Your task to perform on an android device: Search for flights from NYC to Barcelona Image 0: 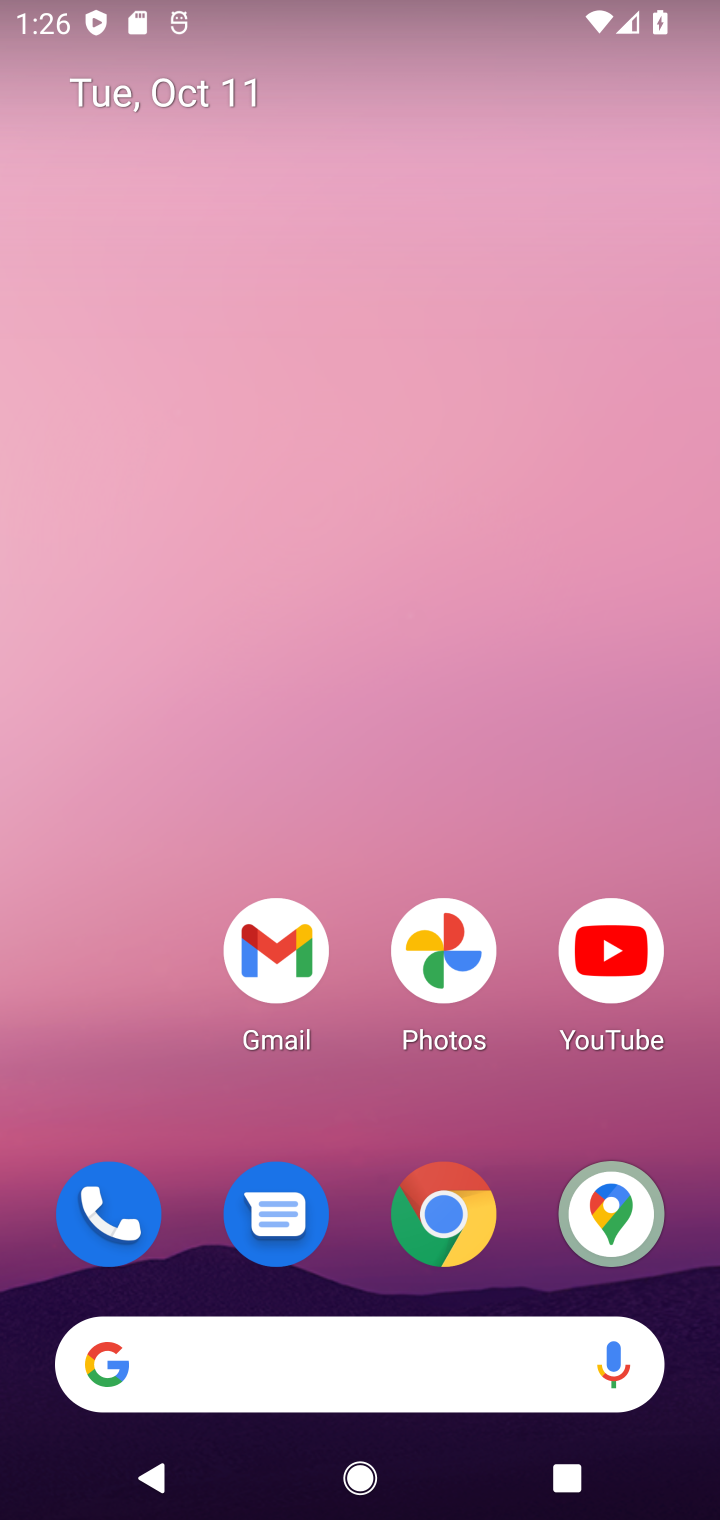
Step 0: click (330, 1358)
Your task to perform on an android device: Search for flights from NYC to Barcelona Image 1: 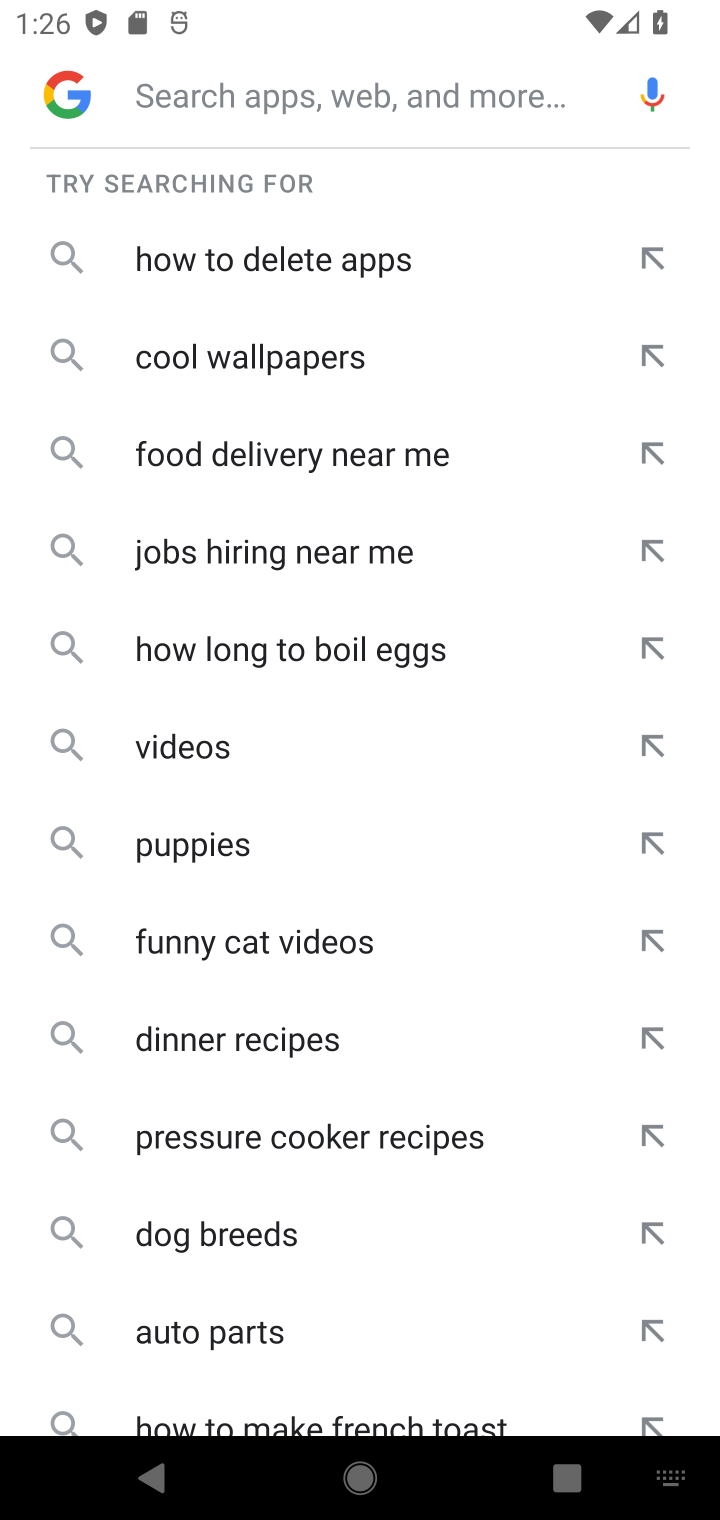
Step 1: type "flights from NYC to barcelona"
Your task to perform on an android device: Search for flights from NYC to Barcelona Image 2: 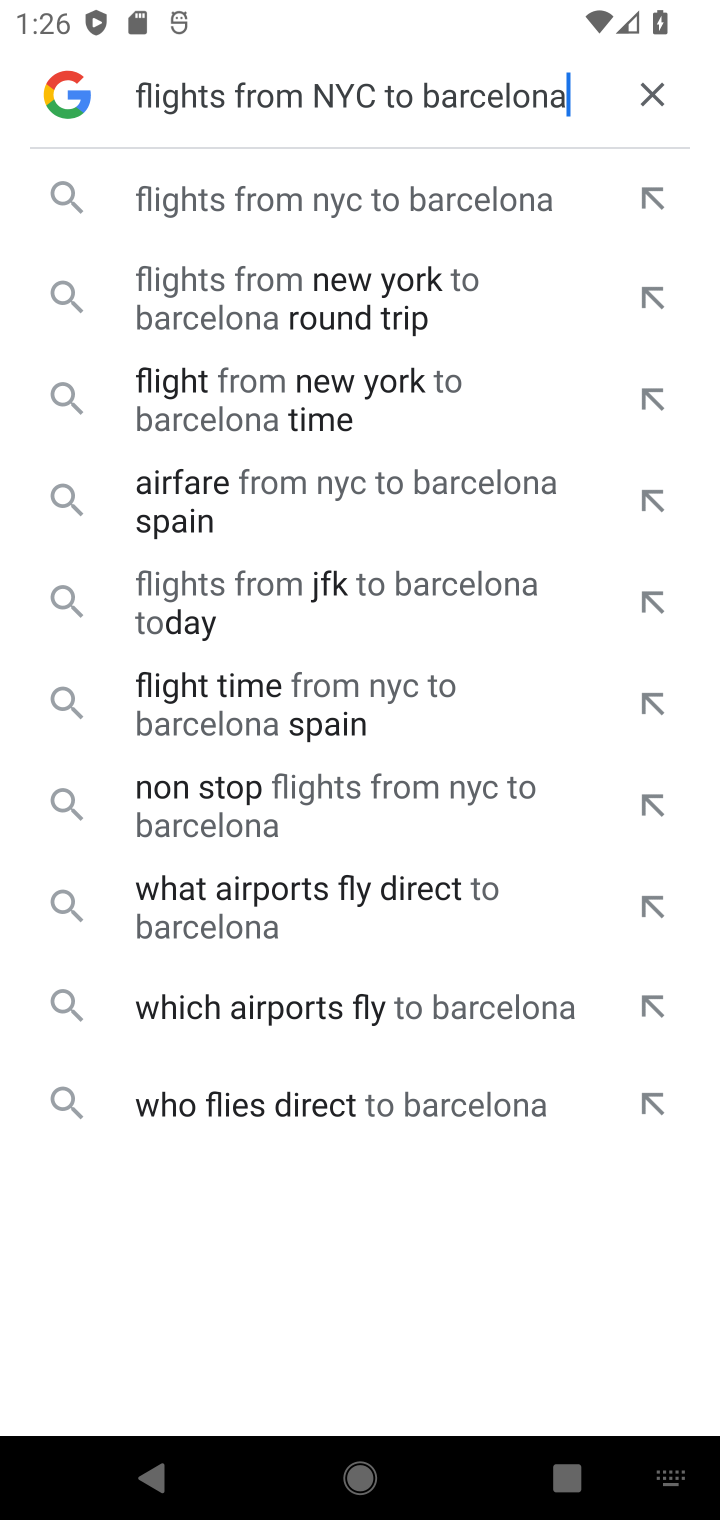
Step 2: click (355, 195)
Your task to perform on an android device: Search for flights from NYC to Barcelona Image 3: 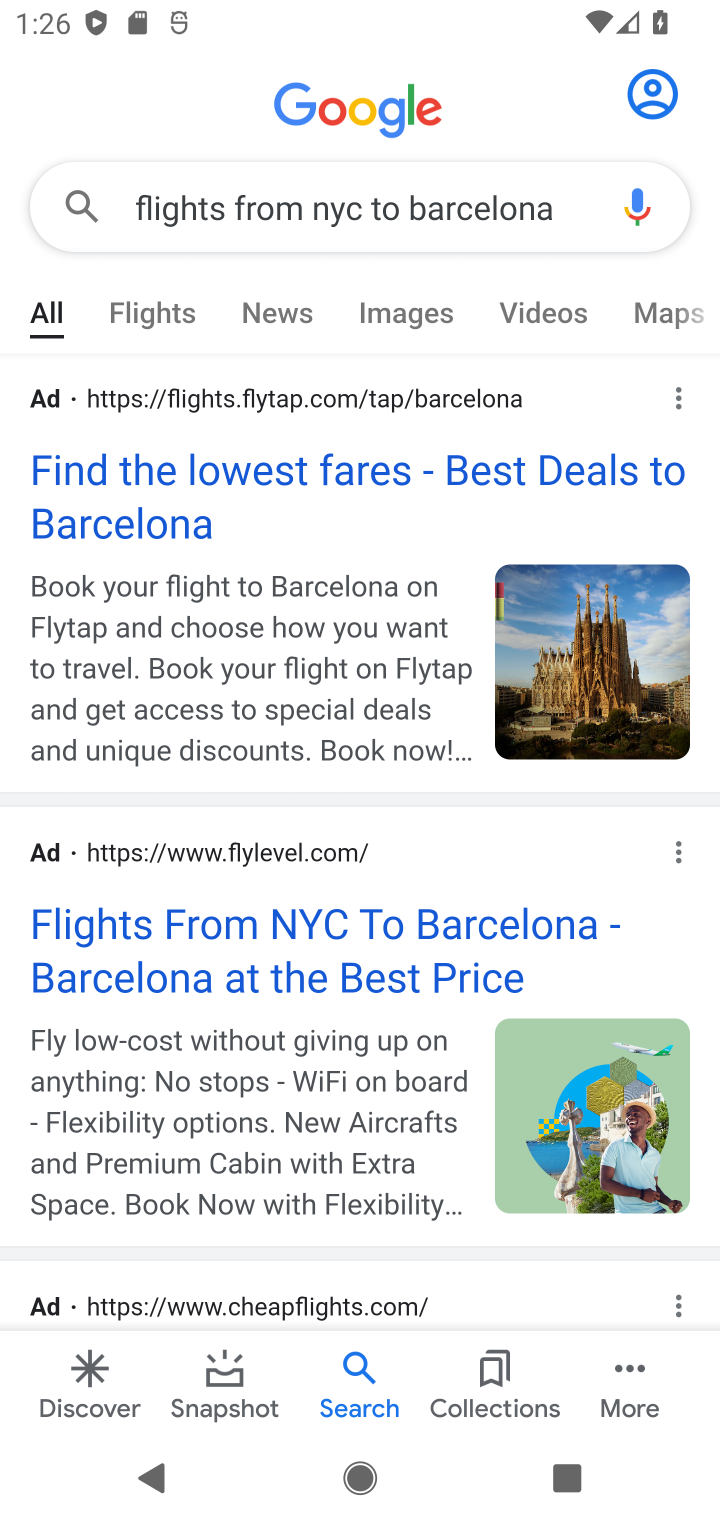
Step 3: click (143, 489)
Your task to perform on an android device: Search for flights from NYC to Barcelona Image 4: 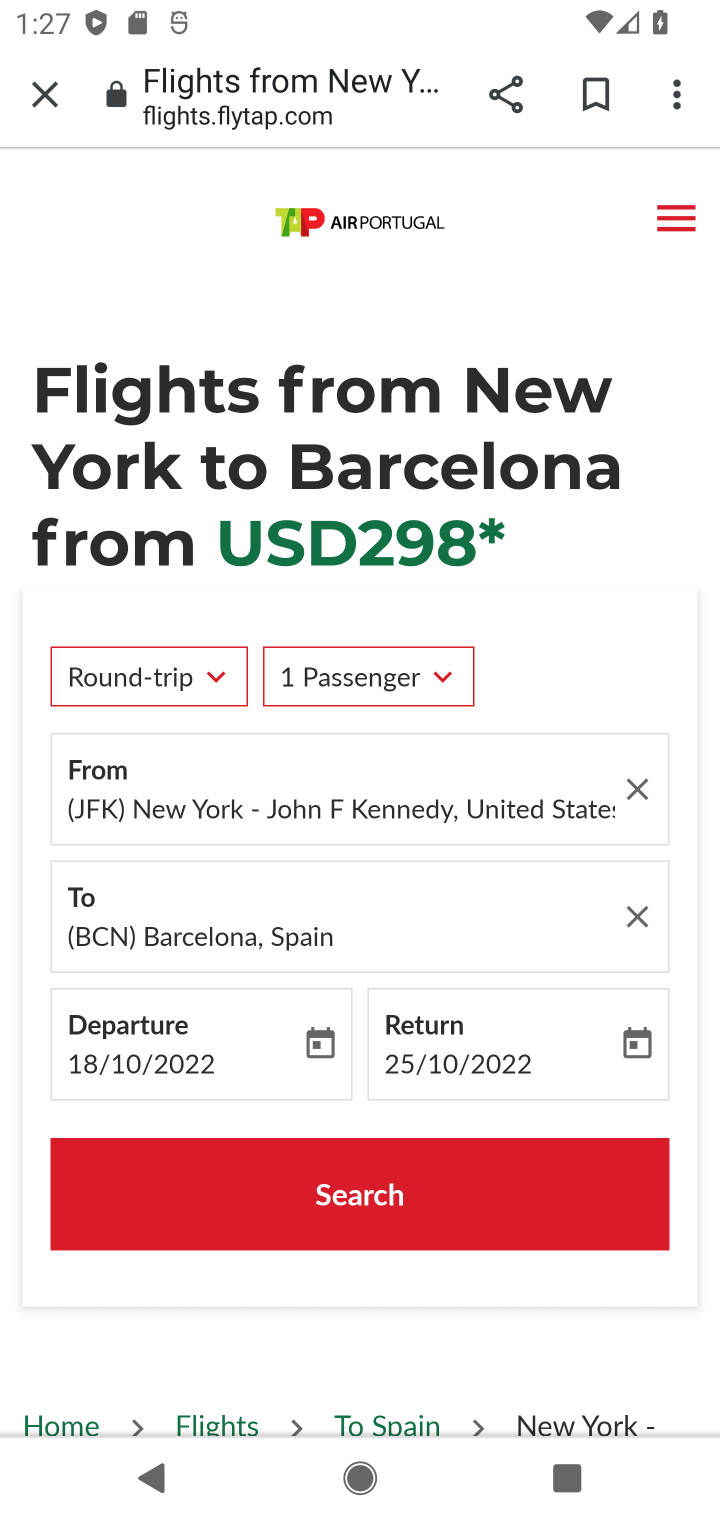
Step 4: click (364, 1192)
Your task to perform on an android device: Search for flights from NYC to Barcelona Image 5: 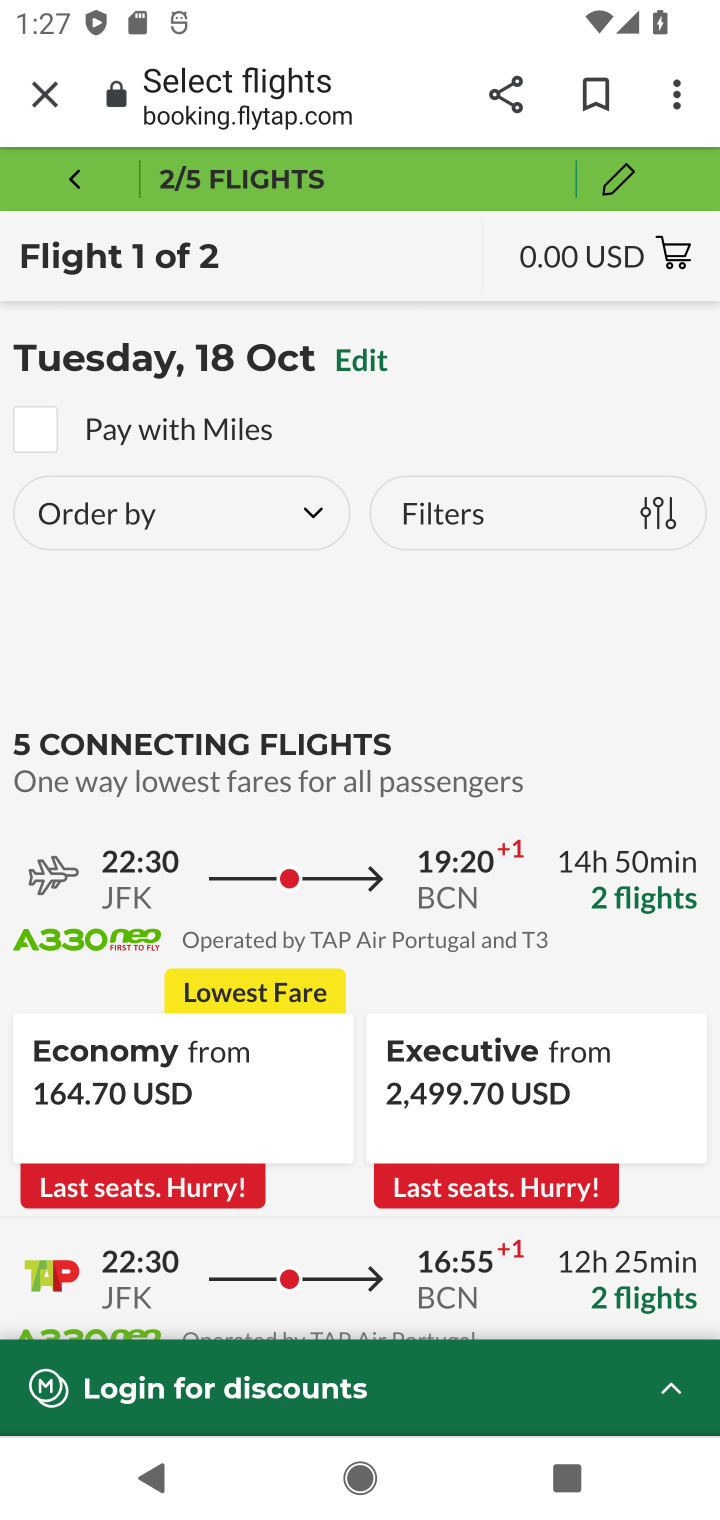
Step 5: task complete